Your task to perform on an android device: Open calendar and show me the fourth week of next month Image 0: 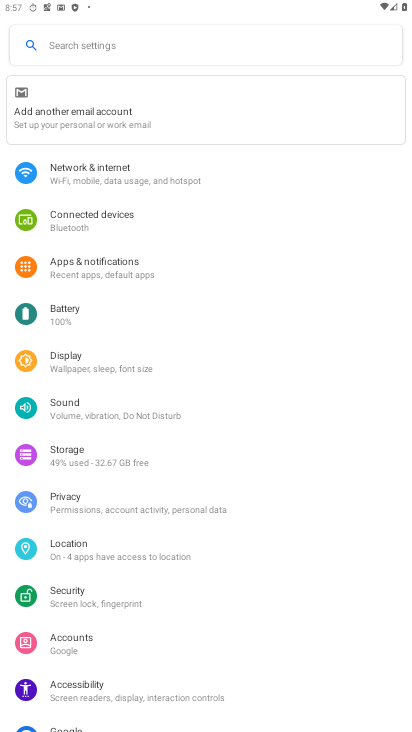
Step 0: press back button
Your task to perform on an android device: Open calendar and show me the fourth week of next month Image 1: 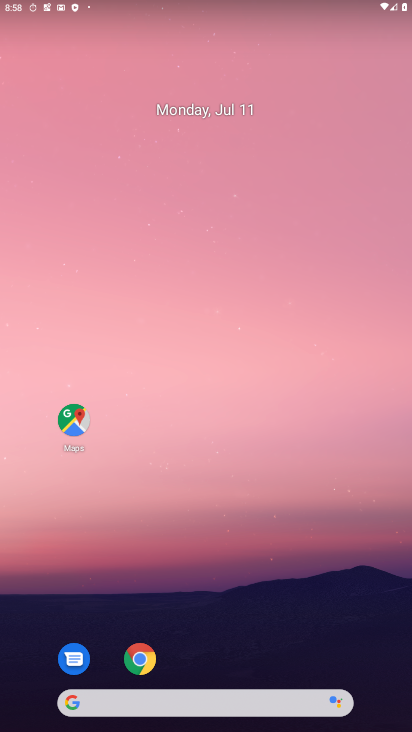
Step 1: click (209, 14)
Your task to perform on an android device: Open calendar and show me the fourth week of next month Image 2: 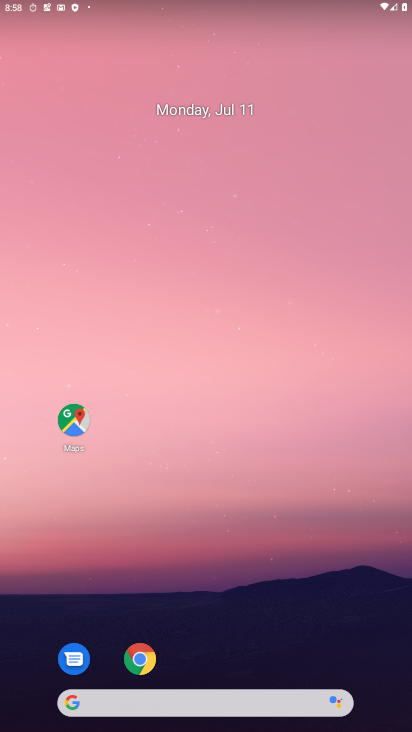
Step 2: drag from (206, 649) to (202, 302)
Your task to perform on an android device: Open calendar and show me the fourth week of next month Image 3: 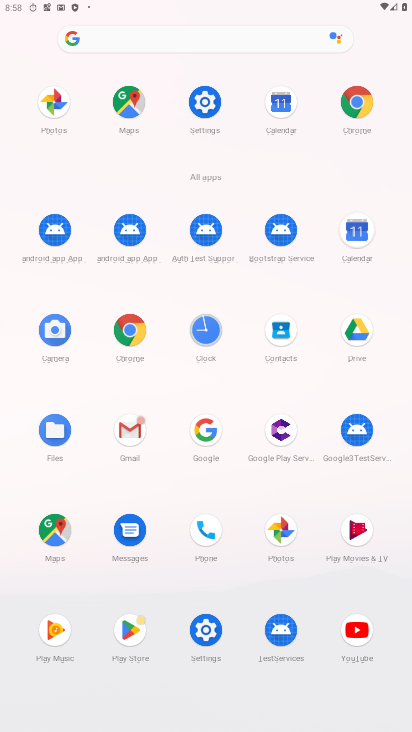
Step 3: click (349, 218)
Your task to perform on an android device: Open calendar and show me the fourth week of next month Image 4: 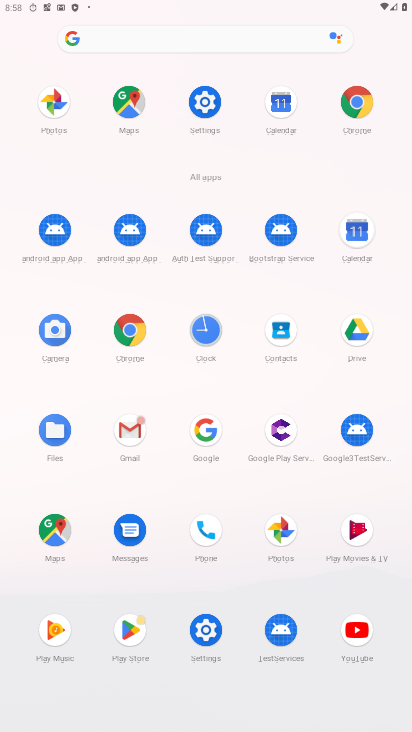
Step 4: click (356, 224)
Your task to perform on an android device: Open calendar and show me the fourth week of next month Image 5: 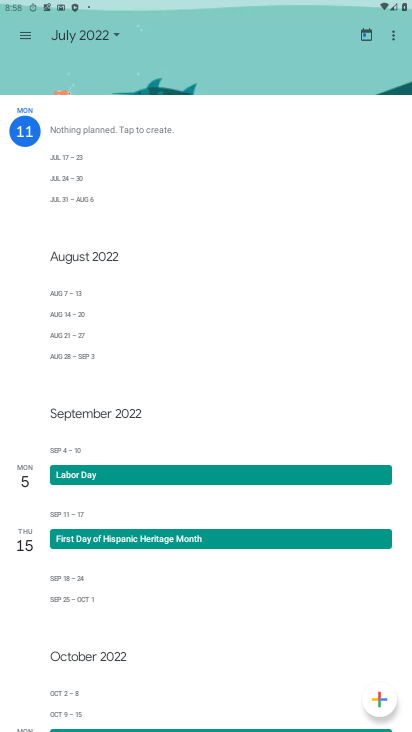
Step 5: click (120, 33)
Your task to perform on an android device: Open calendar and show me the fourth week of next month Image 6: 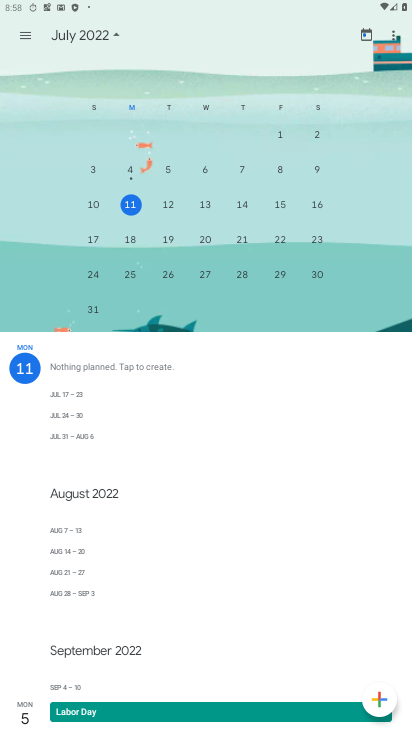
Step 6: task complete